Your task to perform on an android device: Open Google Chrome Image 0: 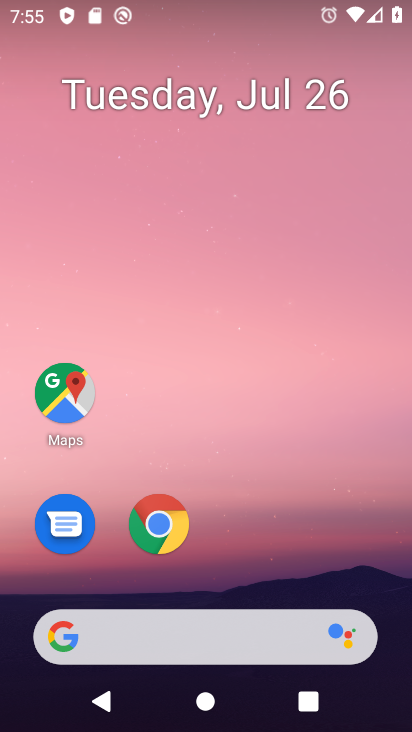
Step 0: click (170, 522)
Your task to perform on an android device: Open Google Chrome Image 1: 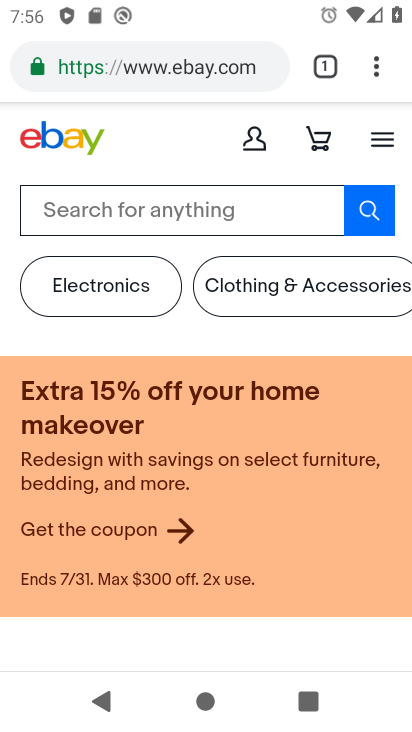
Step 1: click (377, 69)
Your task to perform on an android device: Open Google Chrome Image 2: 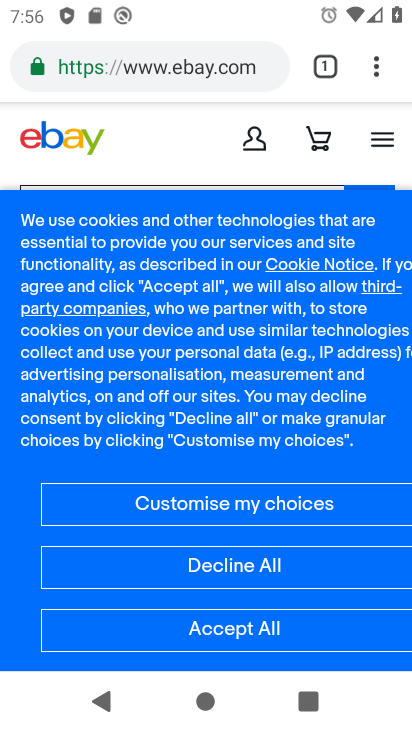
Step 2: task complete